Your task to perform on an android device: choose inbox layout in the gmail app Image 0: 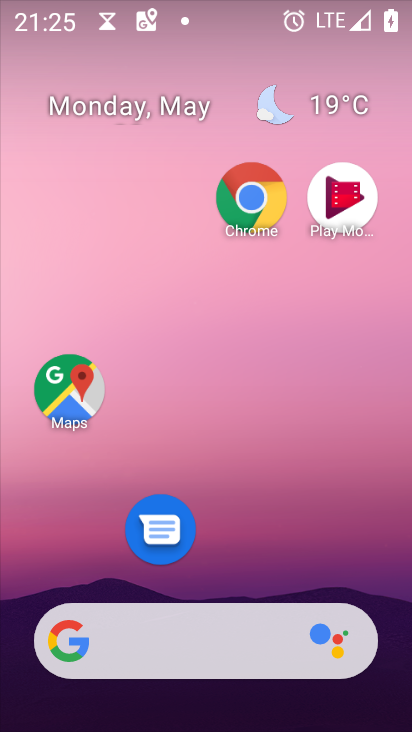
Step 0: drag from (218, 527) to (271, 120)
Your task to perform on an android device: choose inbox layout in the gmail app Image 1: 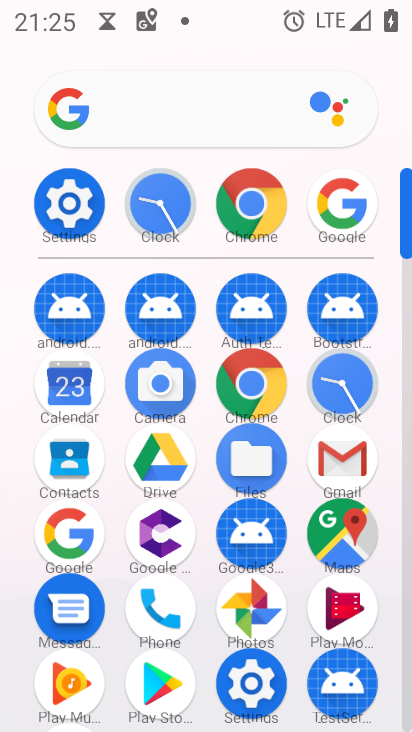
Step 1: click (360, 470)
Your task to perform on an android device: choose inbox layout in the gmail app Image 2: 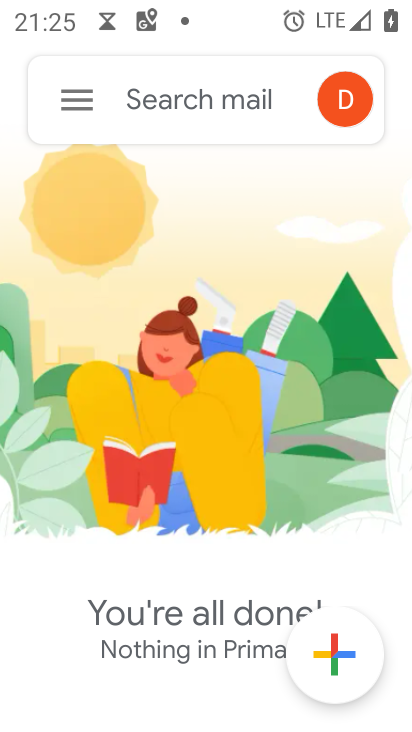
Step 2: click (82, 106)
Your task to perform on an android device: choose inbox layout in the gmail app Image 3: 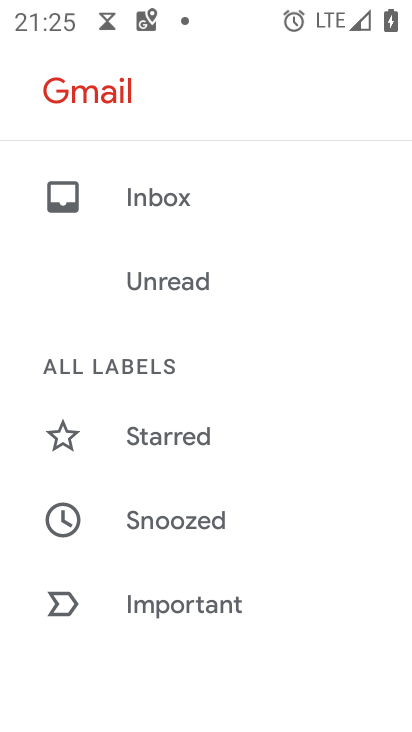
Step 3: drag from (161, 589) to (206, 176)
Your task to perform on an android device: choose inbox layout in the gmail app Image 4: 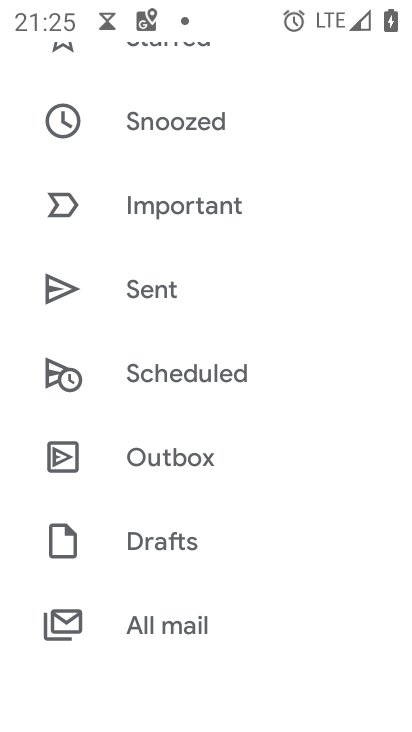
Step 4: drag from (184, 623) to (211, 209)
Your task to perform on an android device: choose inbox layout in the gmail app Image 5: 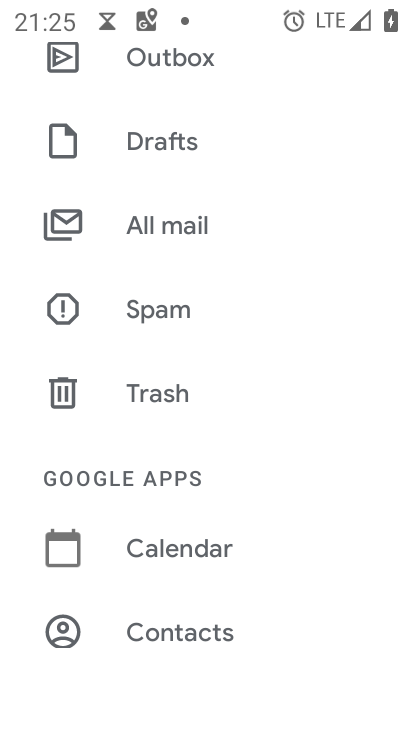
Step 5: drag from (172, 608) to (211, 277)
Your task to perform on an android device: choose inbox layout in the gmail app Image 6: 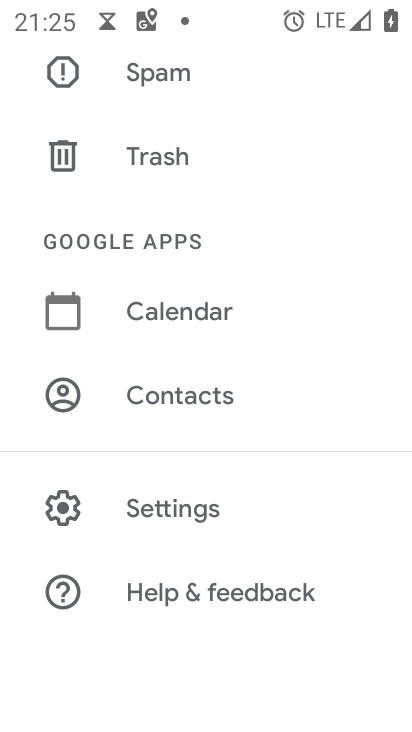
Step 6: click (175, 499)
Your task to perform on an android device: choose inbox layout in the gmail app Image 7: 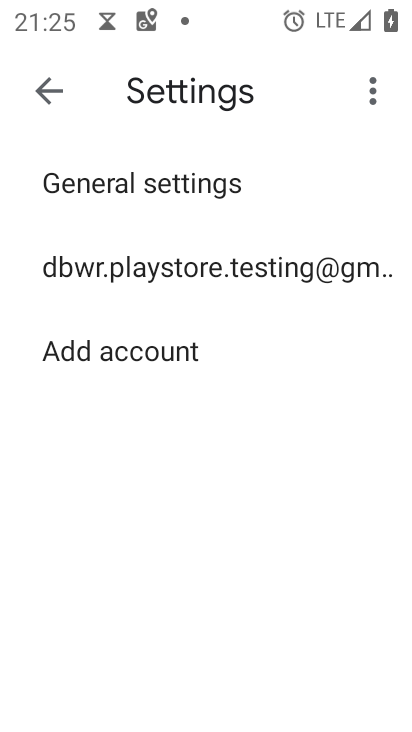
Step 7: click (224, 274)
Your task to perform on an android device: choose inbox layout in the gmail app Image 8: 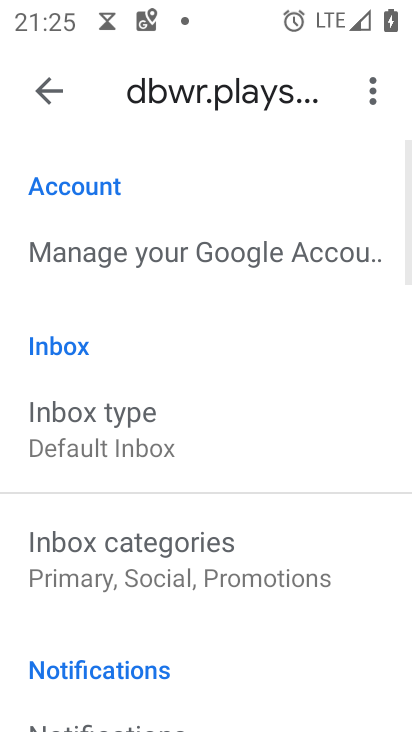
Step 8: click (114, 444)
Your task to perform on an android device: choose inbox layout in the gmail app Image 9: 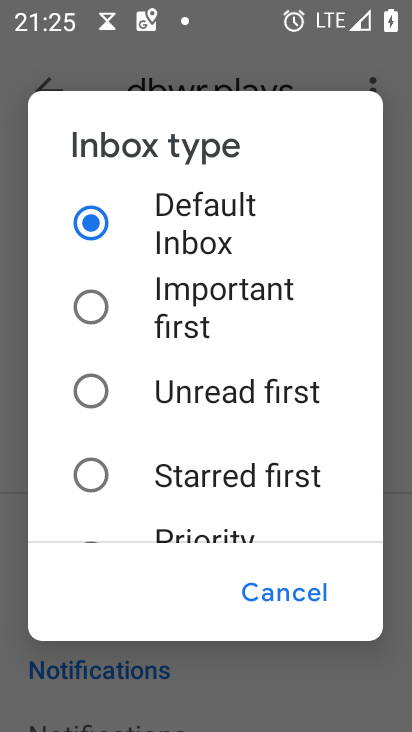
Step 9: click (94, 477)
Your task to perform on an android device: choose inbox layout in the gmail app Image 10: 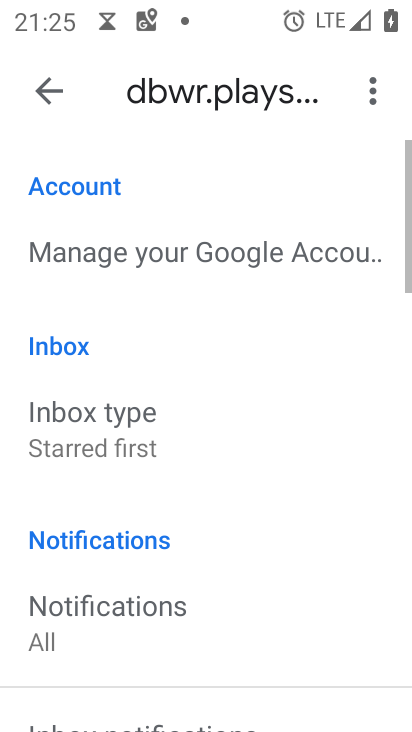
Step 10: task complete